Your task to perform on an android device: see sites visited before in the chrome app Image 0: 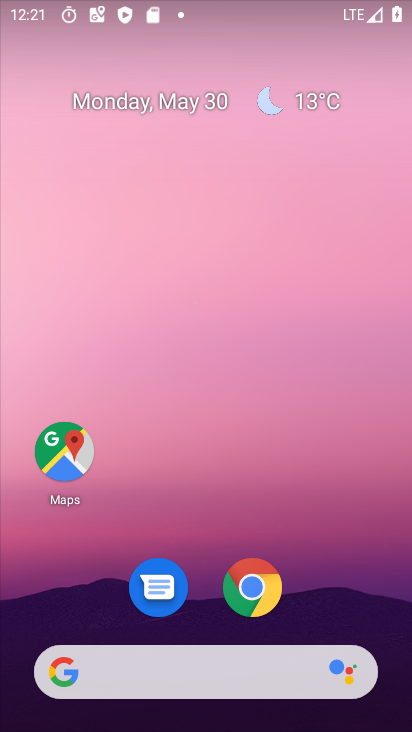
Step 0: click (248, 586)
Your task to perform on an android device: see sites visited before in the chrome app Image 1: 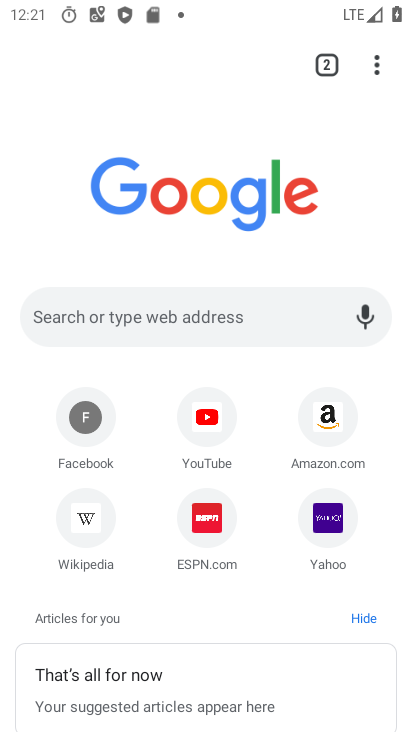
Step 1: task complete